Your task to perform on an android device: Go to accessibility settings Image 0: 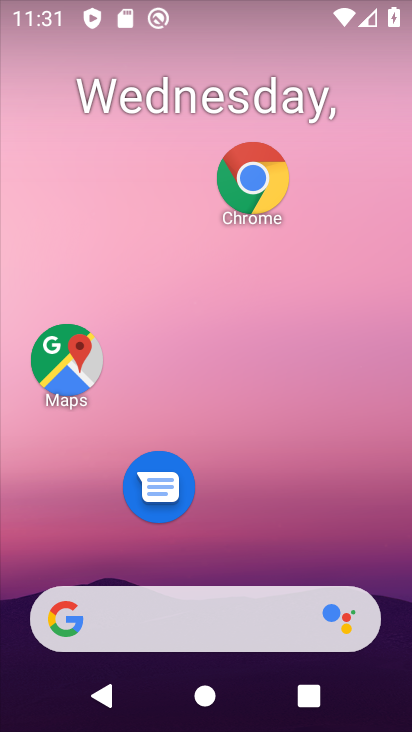
Step 0: drag from (269, 537) to (286, 45)
Your task to perform on an android device: Go to accessibility settings Image 1: 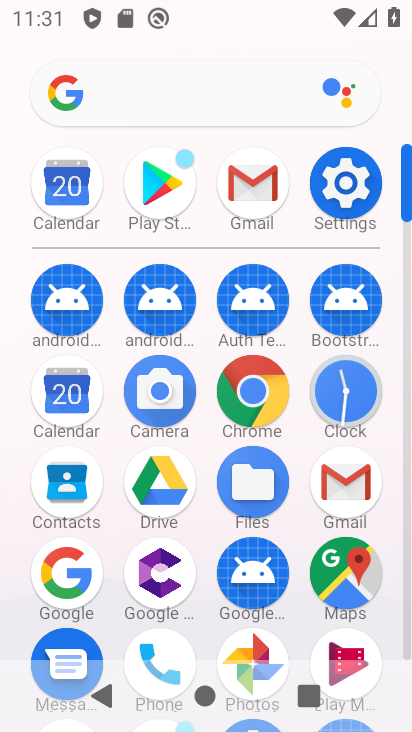
Step 1: click (355, 174)
Your task to perform on an android device: Go to accessibility settings Image 2: 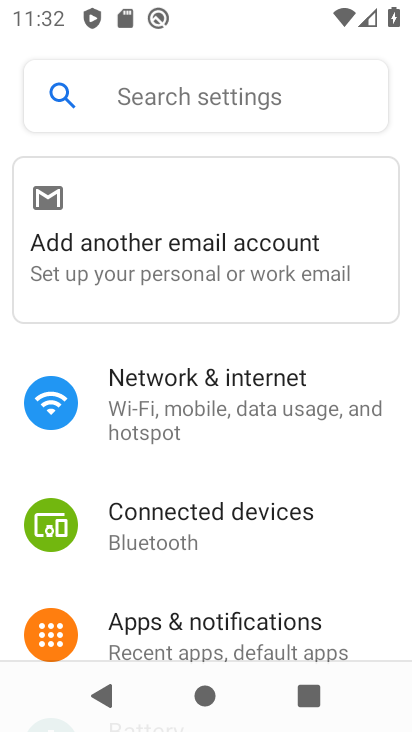
Step 2: drag from (333, 605) to (285, 120)
Your task to perform on an android device: Go to accessibility settings Image 3: 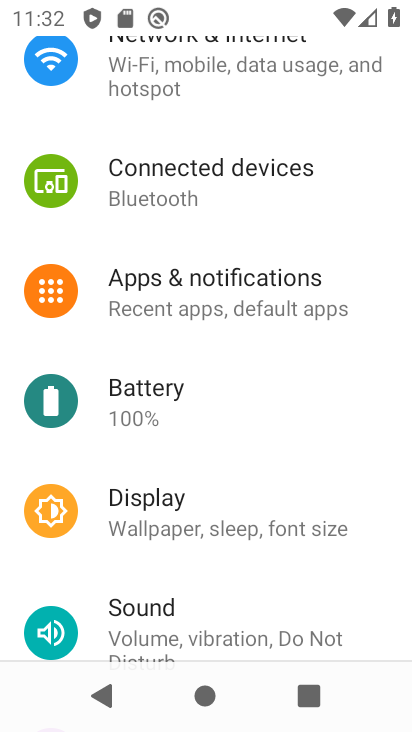
Step 3: drag from (281, 558) to (273, 221)
Your task to perform on an android device: Go to accessibility settings Image 4: 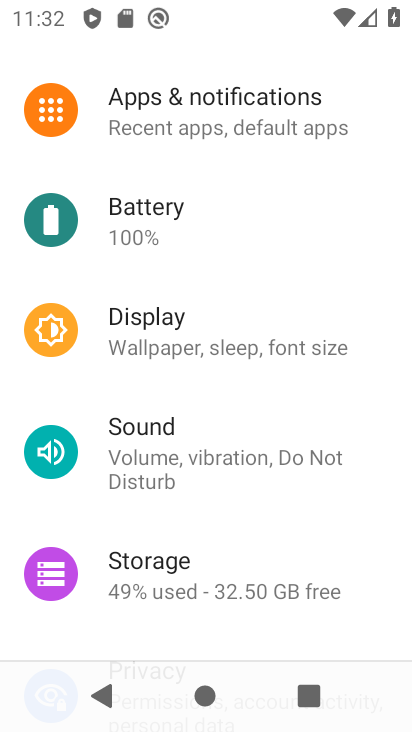
Step 4: drag from (295, 571) to (292, 204)
Your task to perform on an android device: Go to accessibility settings Image 5: 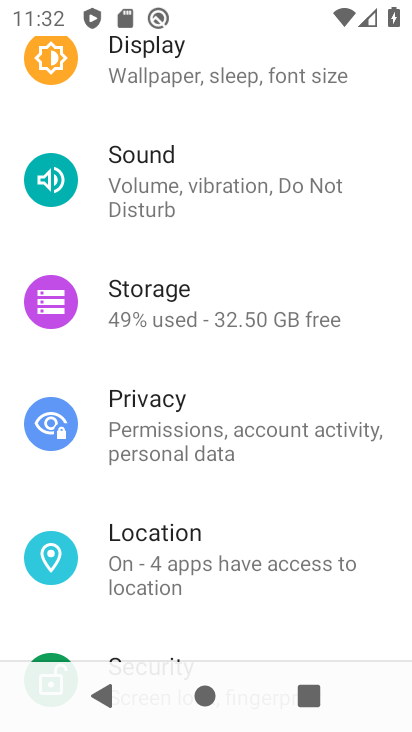
Step 5: drag from (287, 606) to (254, 184)
Your task to perform on an android device: Go to accessibility settings Image 6: 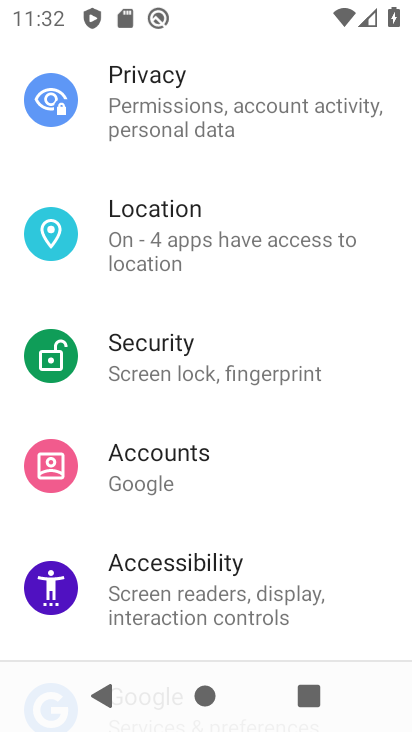
Step 6: click (246, 582)
Your task to perform on an android device: Go to accessibility settings Image 7: 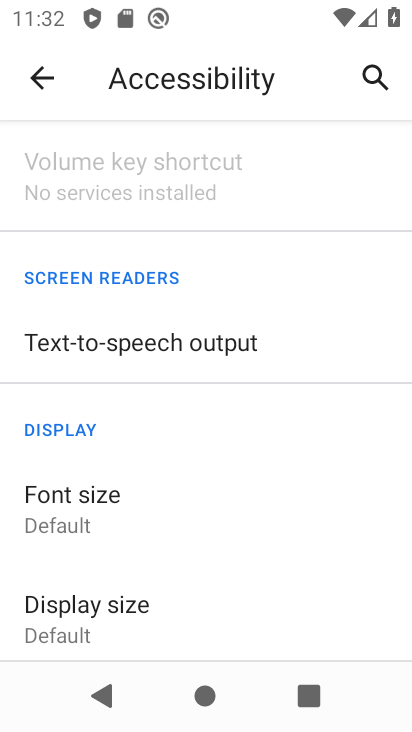
Step 7: task complete